Your task to perform on an android device: Do I have any events tomorrow? Image 0: 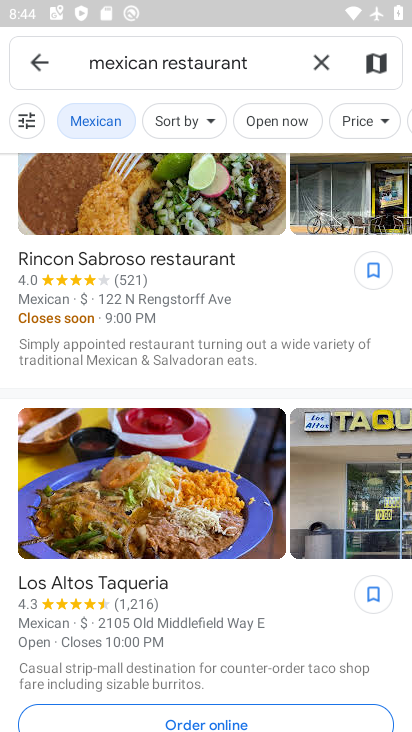
Step 0: press home button
Your task to perform on an android device: Do I have any events tomorrow? Image 1: 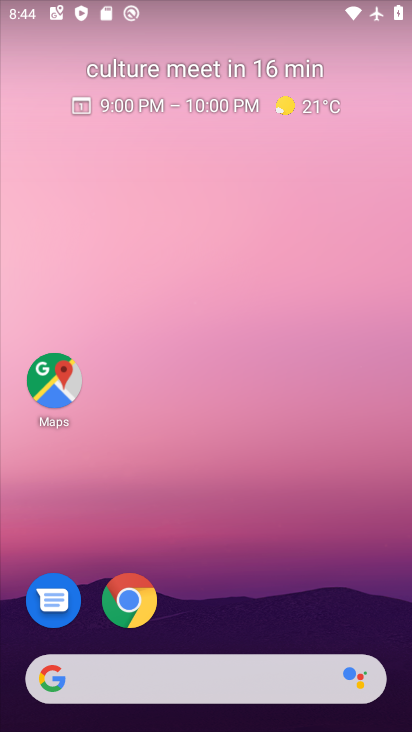
Step 1: drag from (367, 623) to (326, 88)
Your task to perform on an android device: Do I have any events tomorrow? Image 2: 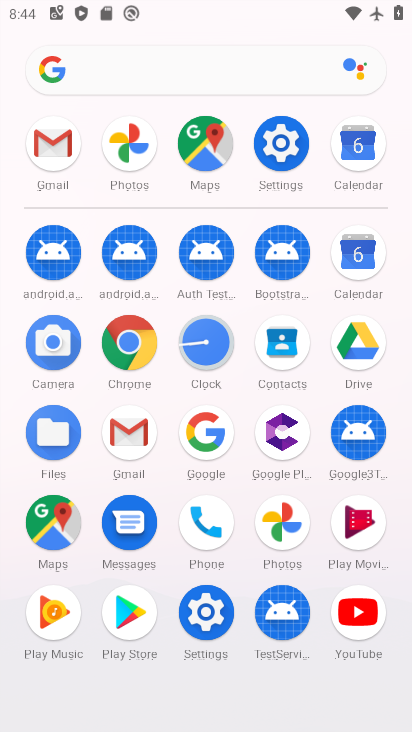
Step 2: click (359, 247)
Your task to perform on an android device: Do I have any events tomorrow? Image 3: 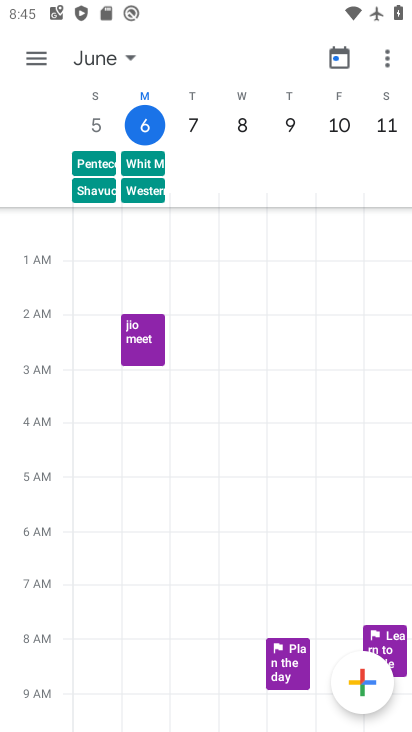
Step 3: click (36, 61)
Your task to perform on an android device: Do I have any events tomorrow? Image 4: 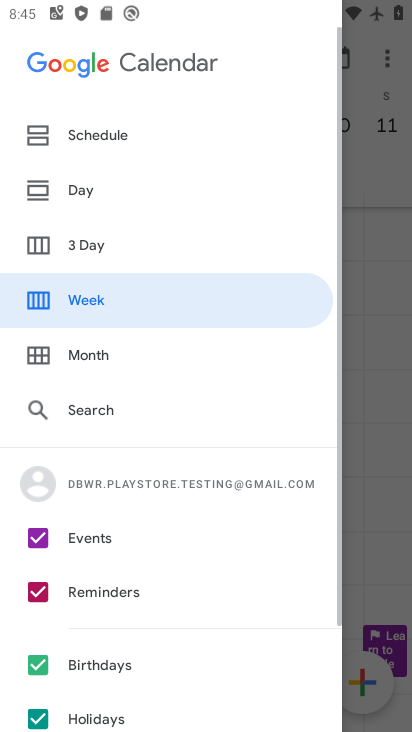
Step 4: click (76, 197)
Your task to perform on an android device: Do I have any events tomorrow? Image 5: 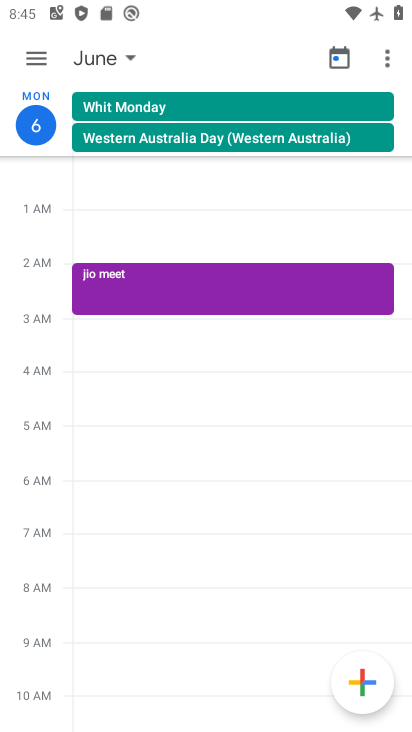
Step 5: click (127, 56)
Your task to perform on an android device: Do I have any events tomorrow? Image 6: 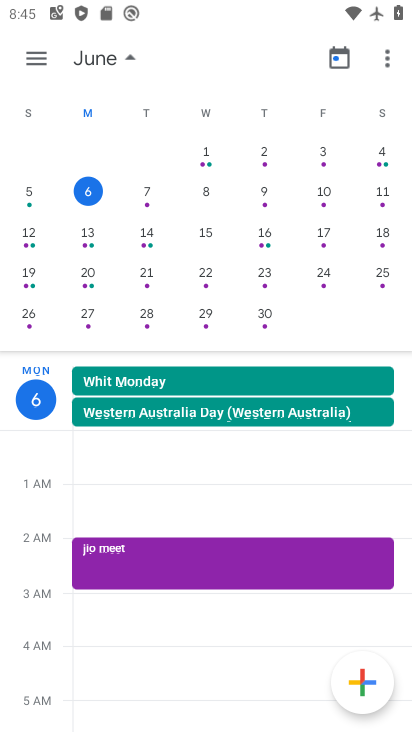
Step 6: click (145, 187)
Your task to perform on an android device: Do I have any events tomorrow? Image 7: 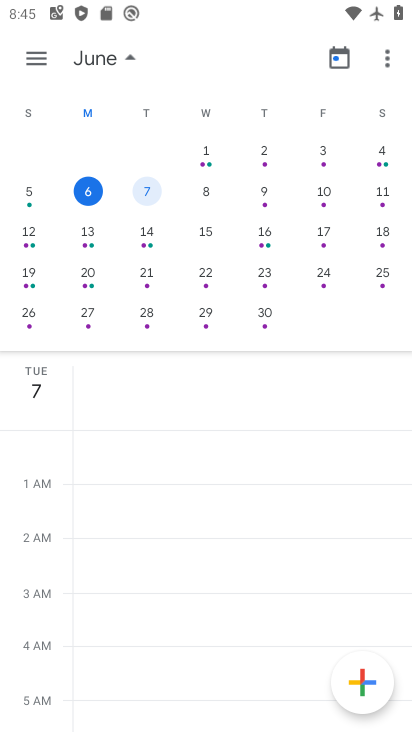
Step 7: task complete